Your task to perform on an android device: Add razer kraken to the cart on bestbuy, then select checkout. Image 0: 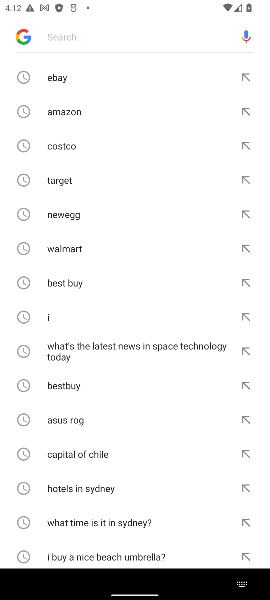
Step 0: press home button
Your task to perform on an android device: Add razer kraken to the cart on bestbuy, then select checkout. Image 1: 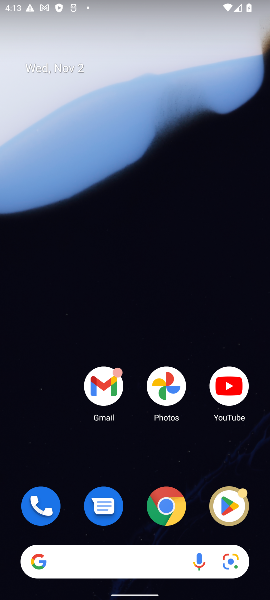
Step 1: press home button
Your task to perform on an android device: Add razer kraken to the cart on bestbuy, then select checkout. Image 2: 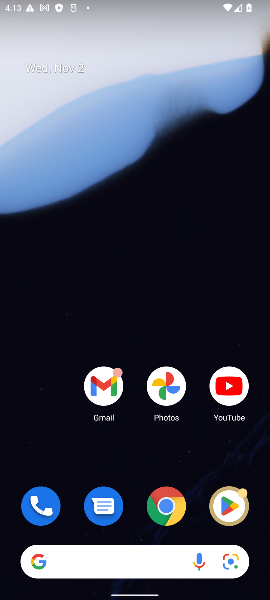
Step 2: click (173, 515)
Your task to perform on an android device: Add razer kraken to the cart on bestbuy, then select checkout. Image 3: 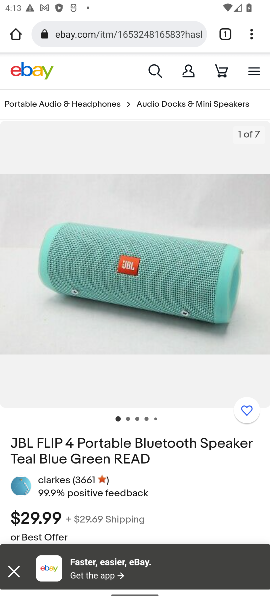
Step 3: click (151, 33)
Your task to perform on an android device: Add razer kraken to the cart on bestbuy, then select checkout. Image 4: 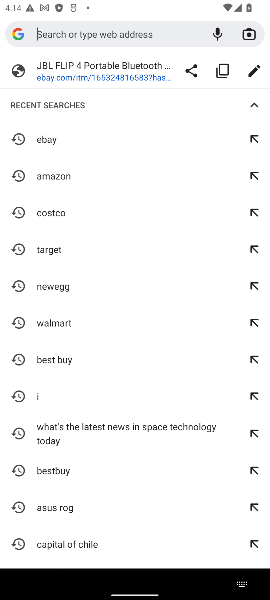
Step 4: type "bestbuy"
Your task to perform on an android device: Add razer kraken to the cart on bestbuy, then select checkout. Image 5: 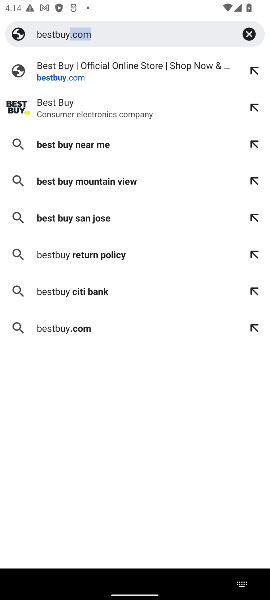
Step 5: press enter
Your task to perform on an android device: Add razer kraken to the cart on bestbuy, then select checkout. Image 6: 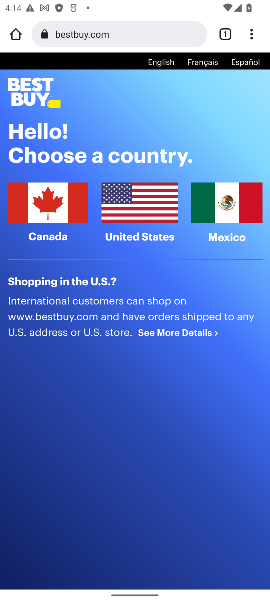
Step 6: click (127, 211)
Your task to perform on an android device: Add razer kraken to the cart on bestbuy, then select checkout. Image 7: 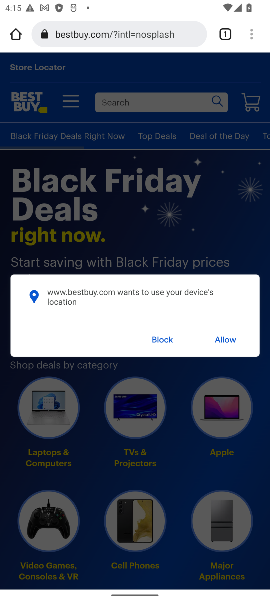
Step 7: click (221, 340)
Your task to perform on an android device: Add razer kraken to the cart on bestbuy, then select checkout. Image 8: 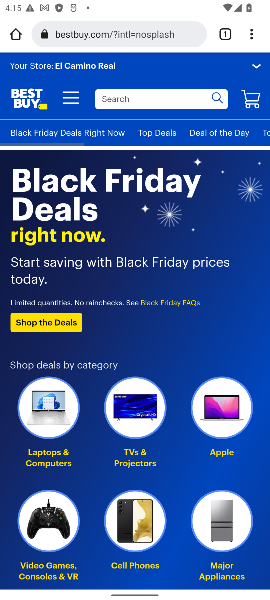
Step 8: click (147, 107)
Your task to perform on an android device: Add razer kraken to the cart on bestbuy, then select checkout. Image 9: 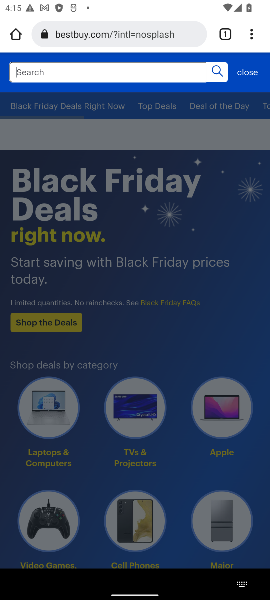
Step 9: type "razer kraken"
Your task to perform on an android device: Add razer kraken to the cart on bestbuy, then select checkout. Image 10: 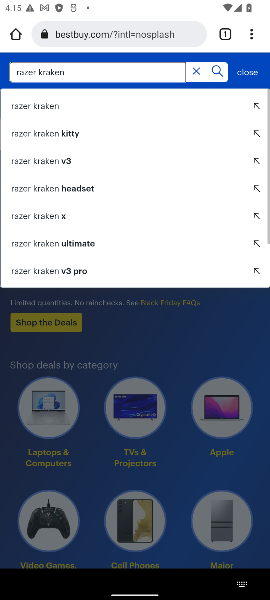
Step 10: press enter
Your task to perform on an android device: Add razer kraken to the cart on bestbuy, then select checkout. Image 11: 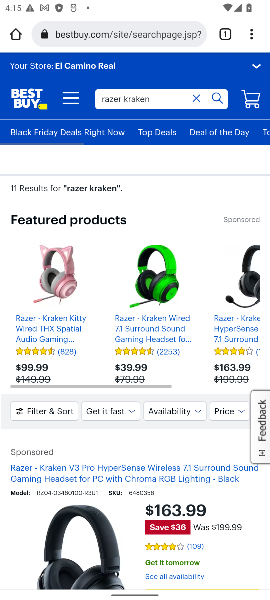
Step 11: task complete